Your task to perform on an android device: Open the calendar app, open the side menu, and click the "Day" option Image 0: 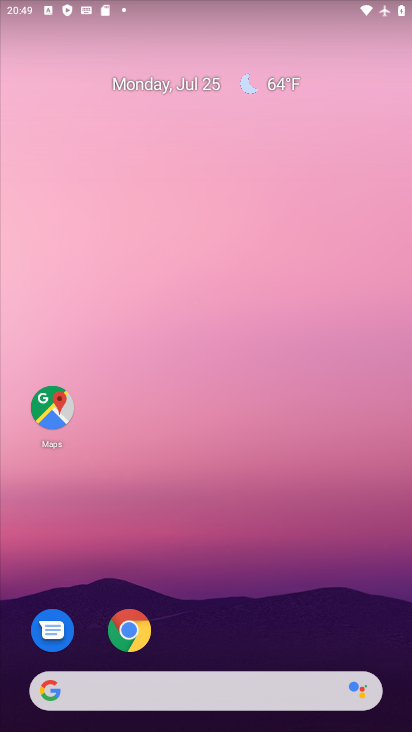
Step 0: drag from (331, 617) to (314, 38)
Your task to perform on an android device: Open the calendar app, open the side menu, and click the "Day" option Image 1: 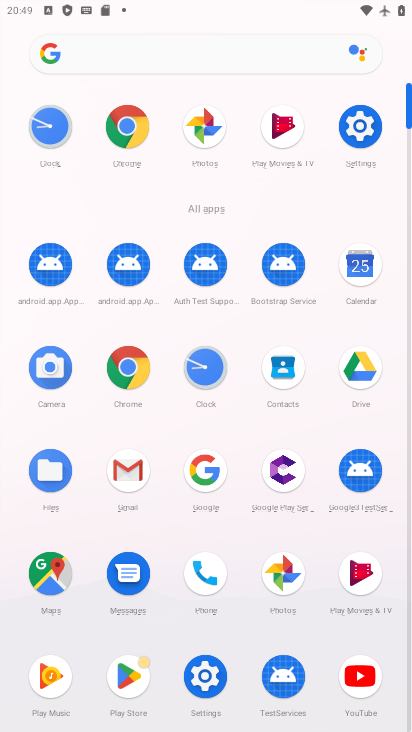
Step 1: click (360, 266)
Your task to perform on an android device: Open the calendar app, open the side menu, and click the "Day" option Image 2: 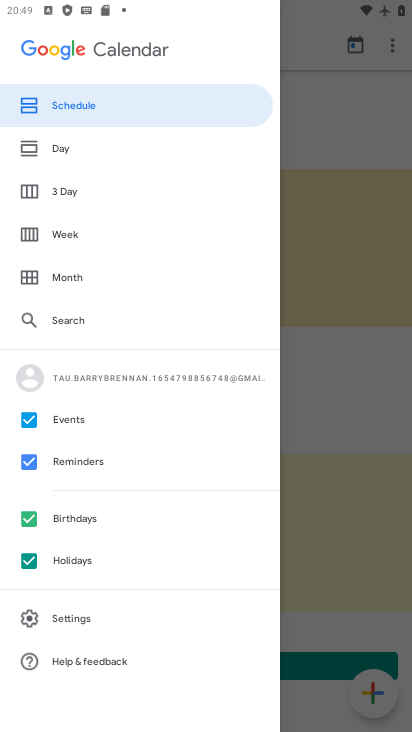
Step 2: click (54, 144)
Your task to perform on an android device: Open the calendar app, open the side menu, and click the "Day" option Image 3: 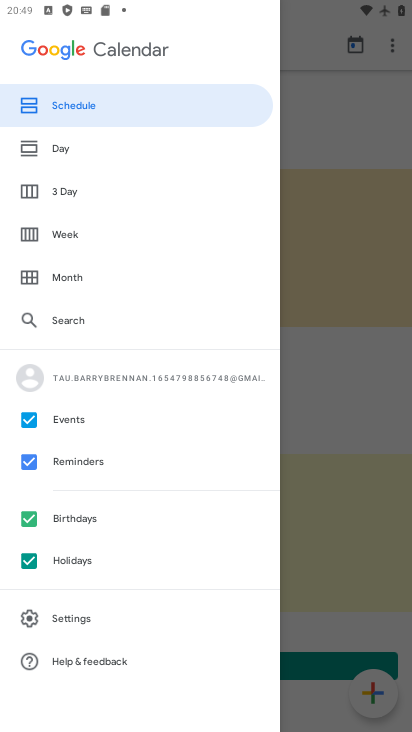
Step 3: click (56, 147)
Your task to perform on an android device: Open the calendar app, open the side menu, and click the "Day" option Image 4: 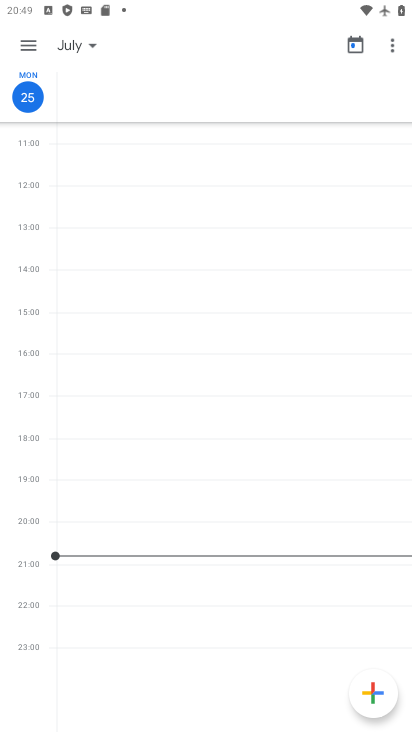
Step 4: task complete